Your task to perform on an android device: Go to Google Image 0: 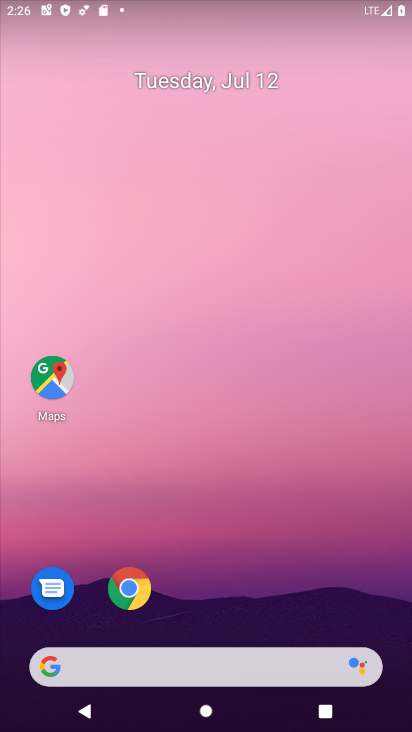
Step 0: click (153, 665)
Your task to perform on an android device: Go to Google Image 1: 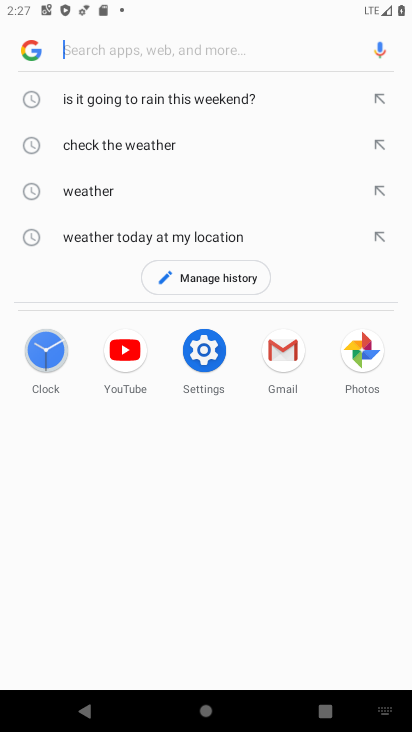
Step 1: task complete